Your task to perform on an android device: turn on improve location accuracy Image 0: 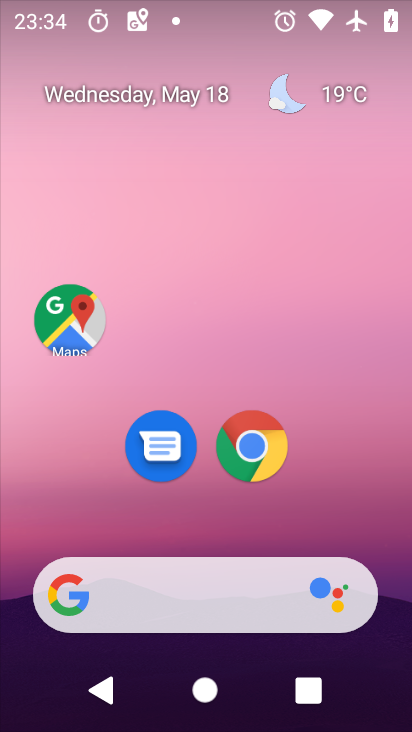
Step 0: press home button
Your task to perform on an android device: turn on improve location accuracy Image 1: 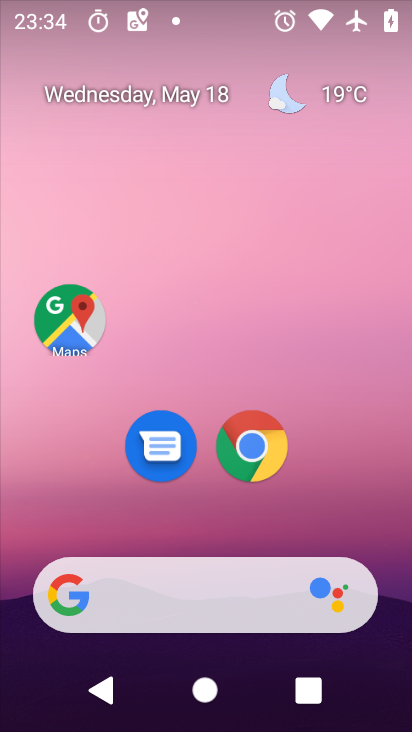
Step 1: drag from (164, 573) to (318, 180)
Your task to perform on an android device: turn on improve location accuracy Image 2: 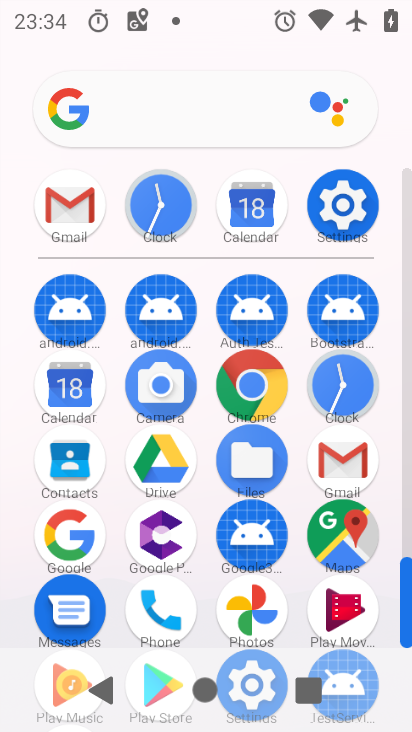
Step 2: click (338, 206)
Your task to perform on an android device: turn on improve location accuracy Image 3: 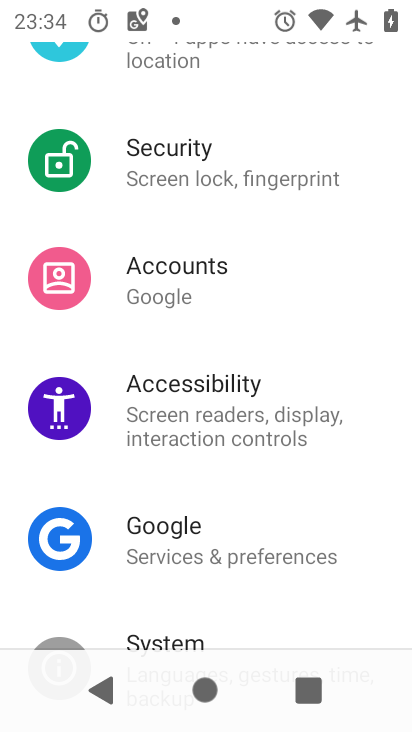
Step 3: drag from (283, 518) to (336, 178)
Your task to perform on an android device: turn on improve location accuracy Image 4: 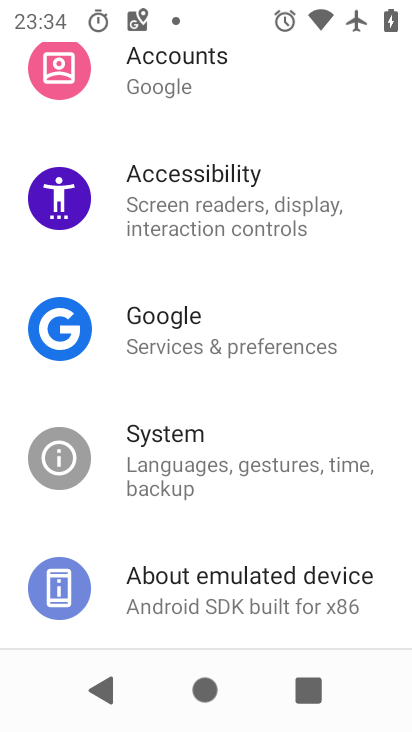
Step 4: drag from (327, 119) to (222, 559)
Your task to perform on an android device: turn on improve location accuracy Image 5: 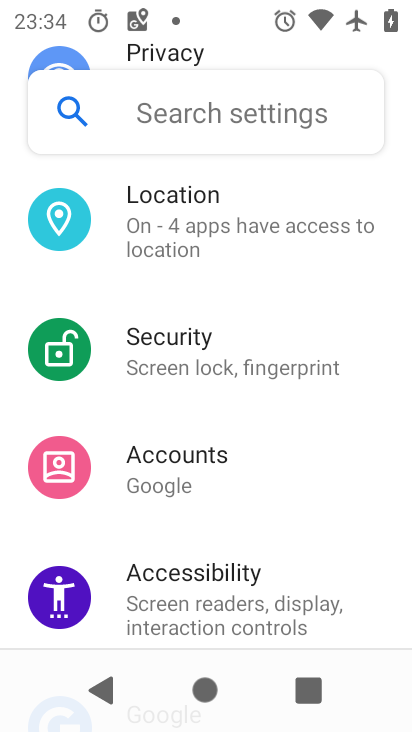
Step 5: click (199, 225)
Your task to perform on an android device: turn on improve location accuracy Image 6: 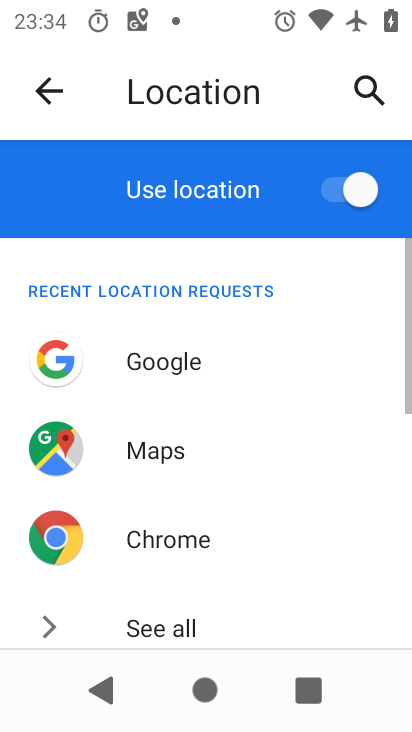
Step 6: drag from (289, 554) to (338, 263)
Your task to perform on an android device: turn on improve location accuracy Image 7: 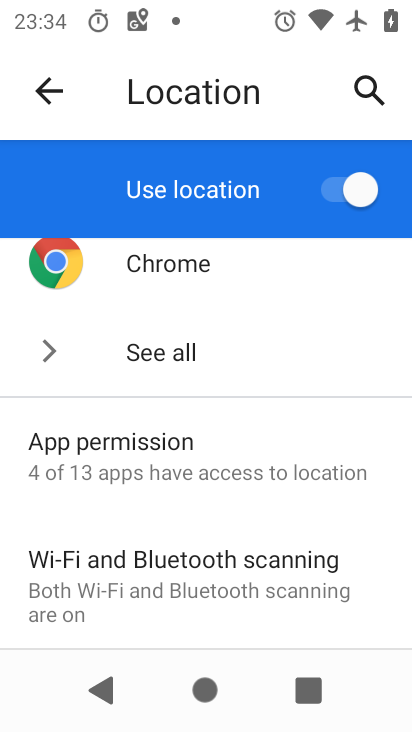
Step 7: drag from (209, 534) to (326, 291)
Your task to perform on an android device: turn on improve location accuracy Image 8: 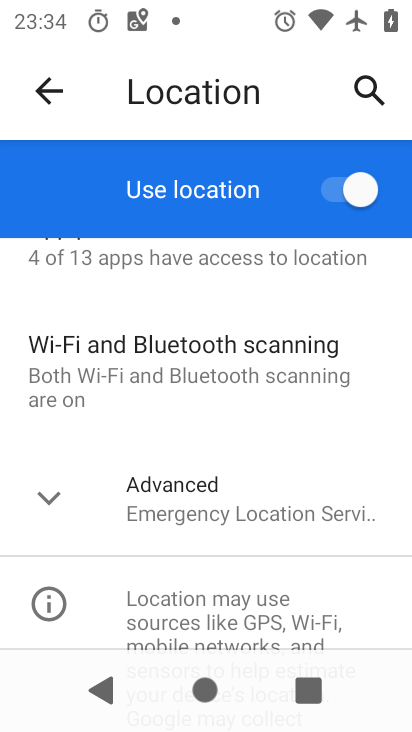
Step 8: click (187, 494)
Your task to perform on an android device: turn on improve location accuracy Image 9: 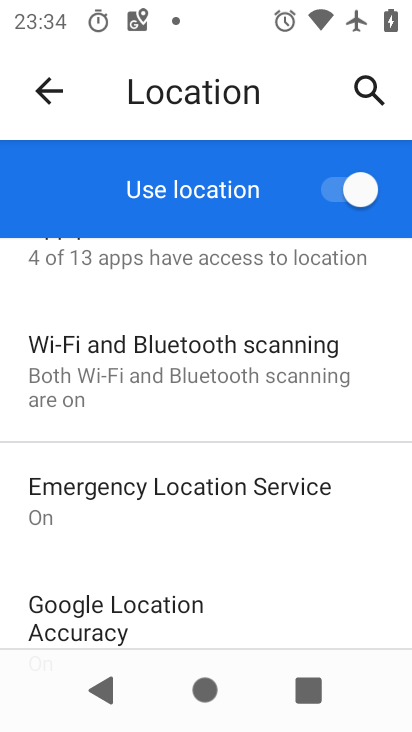
Step 9: drag from (257, 579) to (351, 330)
Your task to perform on an android device: turn on improve location accuracy Image 10: 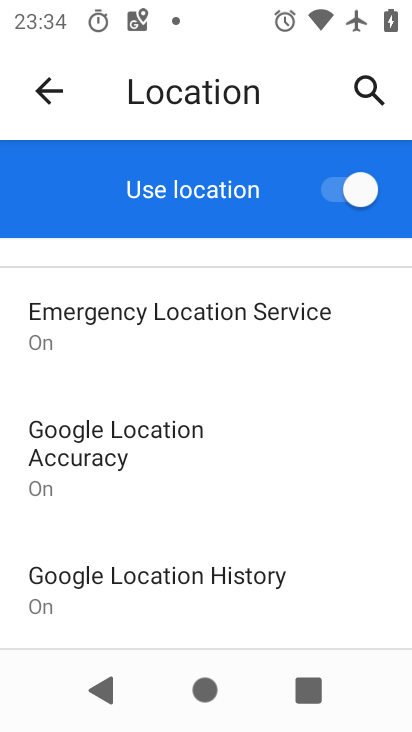
Step 10: click (129, 441)
Your task to perform on an android device: turn on improve location accuracy Image 11: 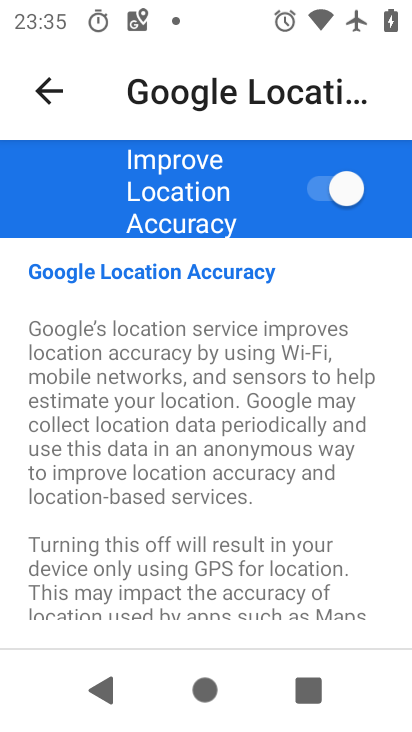
Step 11: task complete